Your task to perform on an android device: Check the news Image 0: 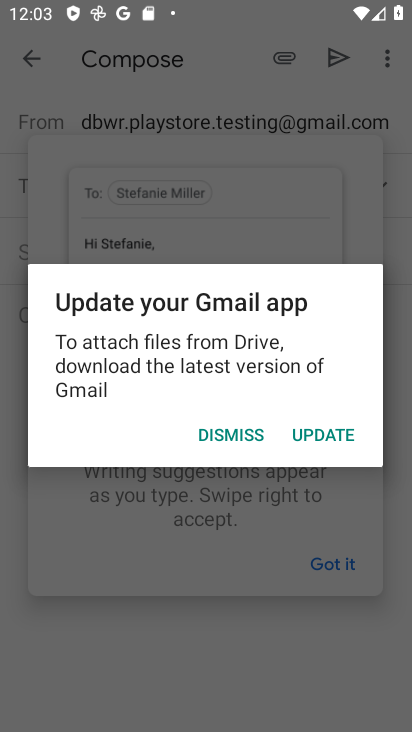
Step 0: click (239, 432)
Your task to perform on an android device: Check the news Image 1: 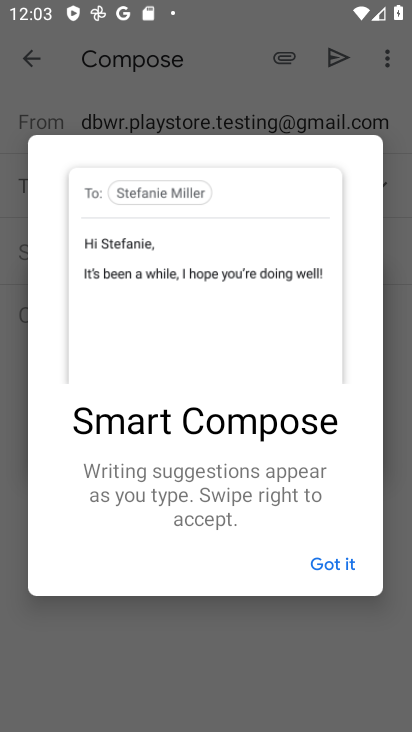
Step 1: click (314, 567)
Your task to perform on an android device: Check the news Image 2: 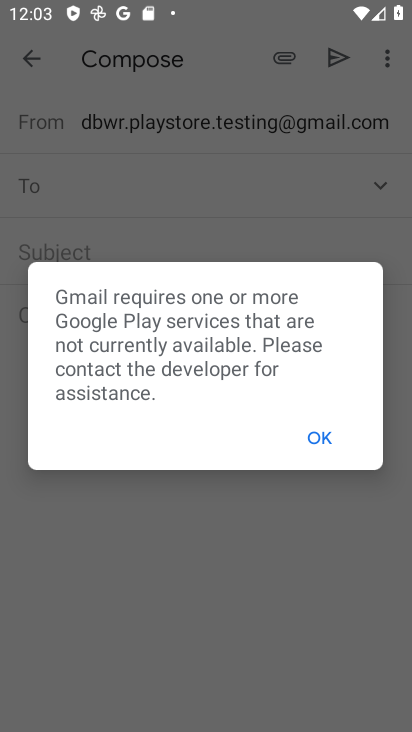
Step 2: click (329, 447)
Your task to perform on an android device: Check the news Image 3: 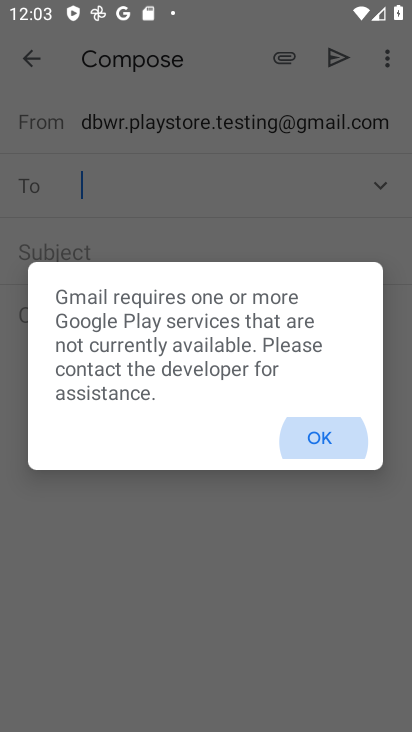
Step 3: click (329, 447)
Your task to perform on an android device: Check the news Image 4: 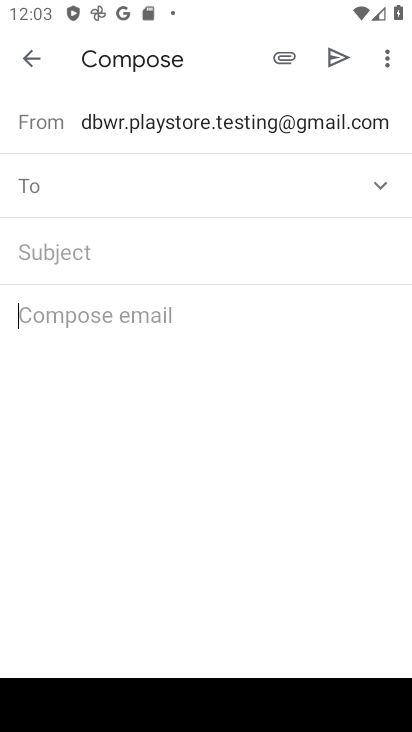
Step 4: click (31, 58)
Your task to perform on an android device: Check the news Image 5: 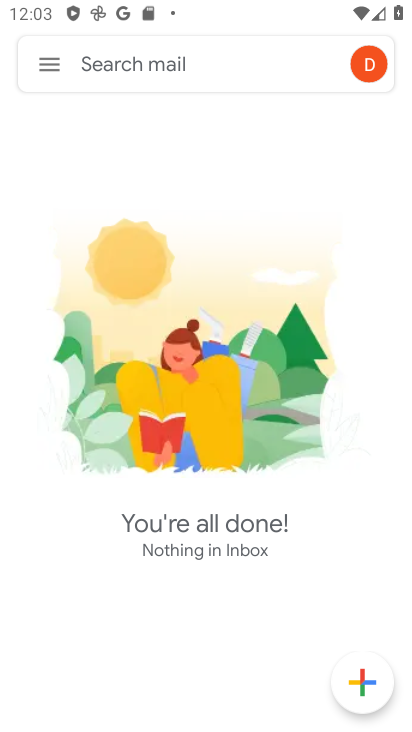
Step 5: task complete